Your task to perform on an android device: toggle improve location accuracy Image 0: 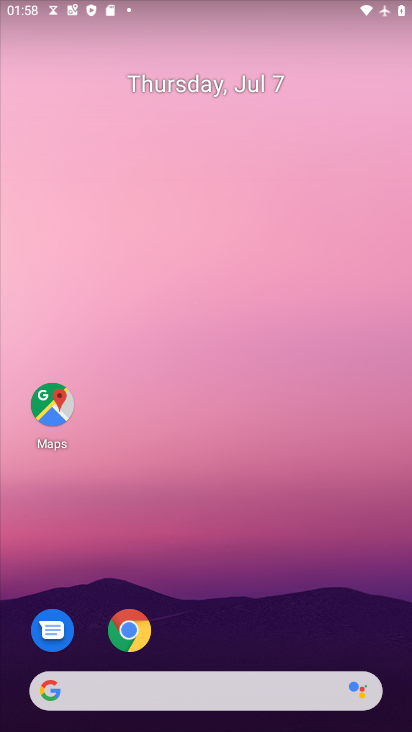
Step 0: drag from (276, 621) to (225, 105)
Your task to perform on an android device: toggle improve location accuracy Image 1: 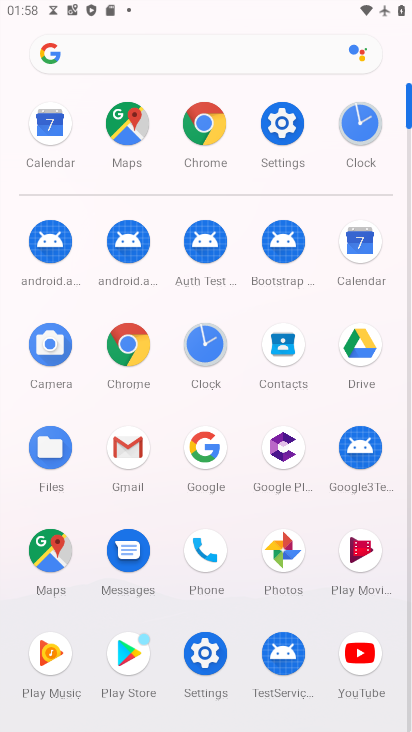
Step 1: click (285, 132)
Your task to perform on an android device: toggle improve location accuracy Image 2: 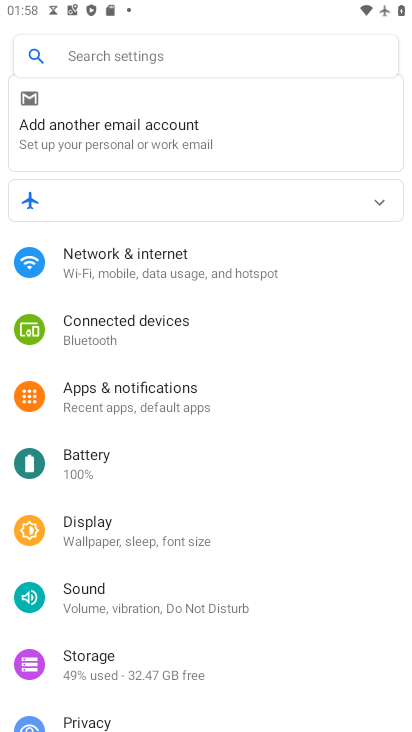
Step 2: drag from (235, 671) to (181, 309)
Your task to perform on an android device: toggle improve location accuracy Image 3: 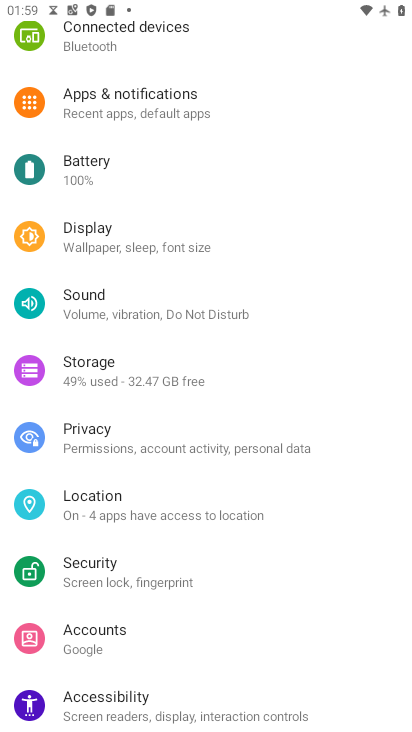
Step 3: click (178, 517)
Your task to perform on an android device: toggle improve location accuracy Image 4: 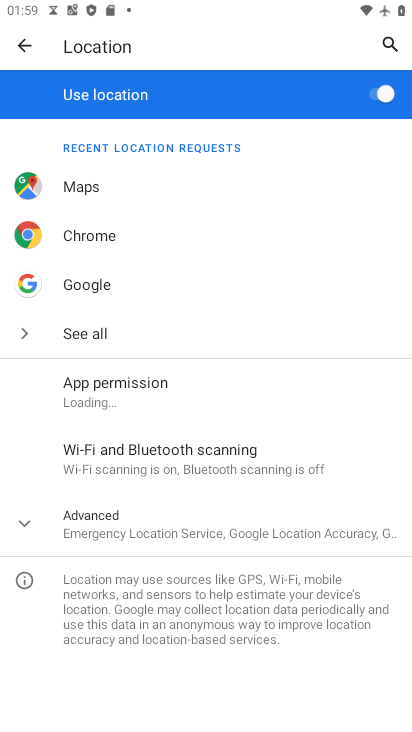
Step 4: click (203, 535)
Your task to perform on an android device: toggle improve location accuracy Image 5: 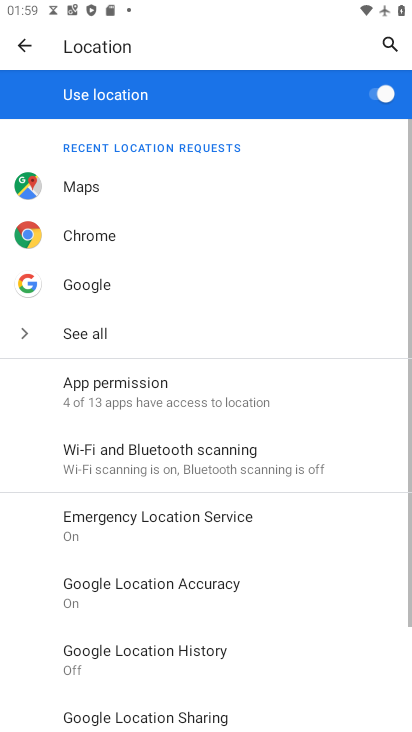
Step 5: click (227, 585)
Your task to perform on an android device: toggle improve location accuracy Image 6: 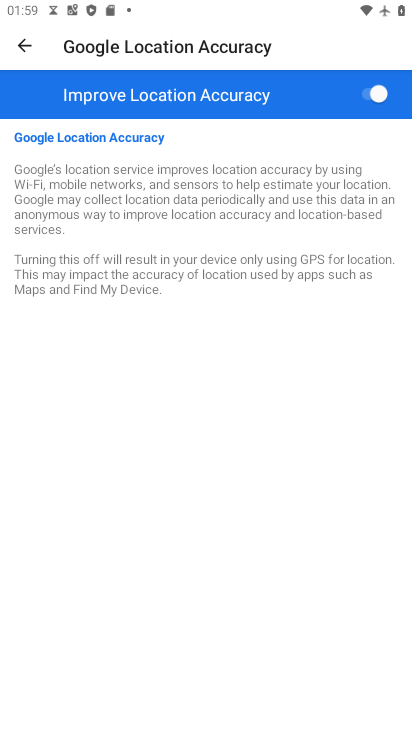
Step 6: click (375, 97)
Your task to perform on an android device: toggle improve location accuracy Image 7: 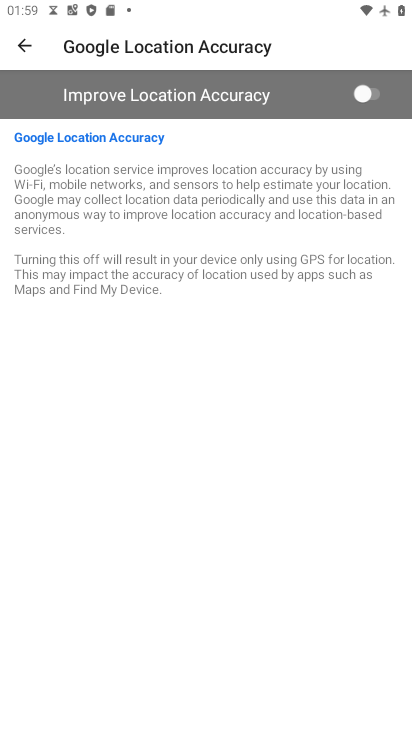
Step 7: task complete